Your task to perform on an android device: turn notification dots off Image 0: 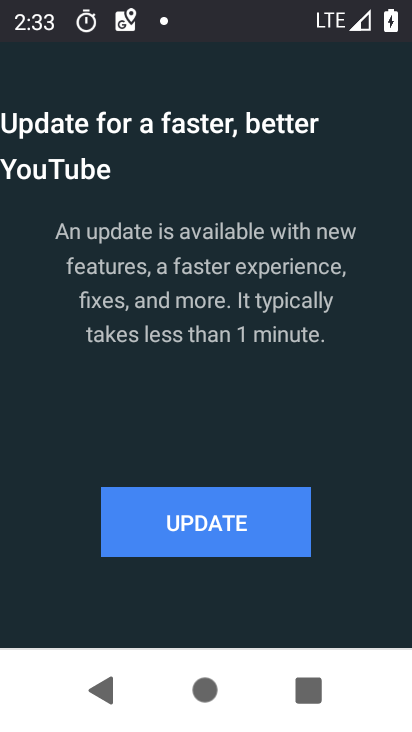
Step 0: drag from (216, 571) to (0, 17)
Your task to perform on an android device: turn notification dots off Image 1: 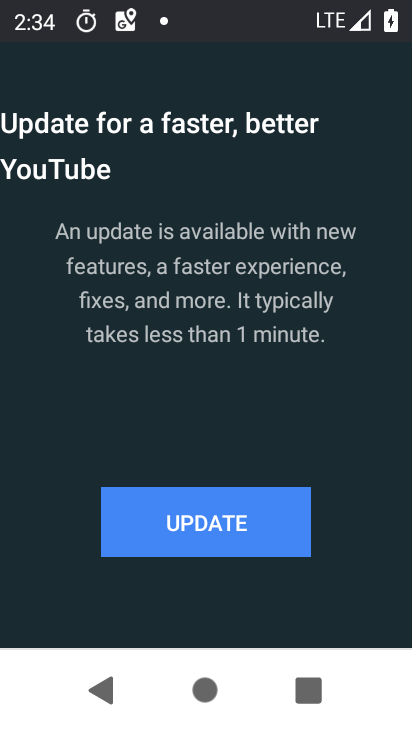
Step 1: press home button
Your task to perform on an android device: turn notification dots off Image 2: 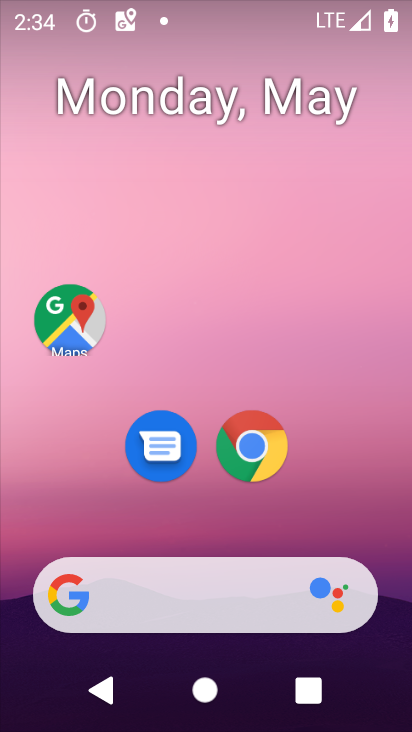
Step 2: drag from (260, 629) to (266, 197)
Your task to perform on an android device: turn notification dots off Image 3: 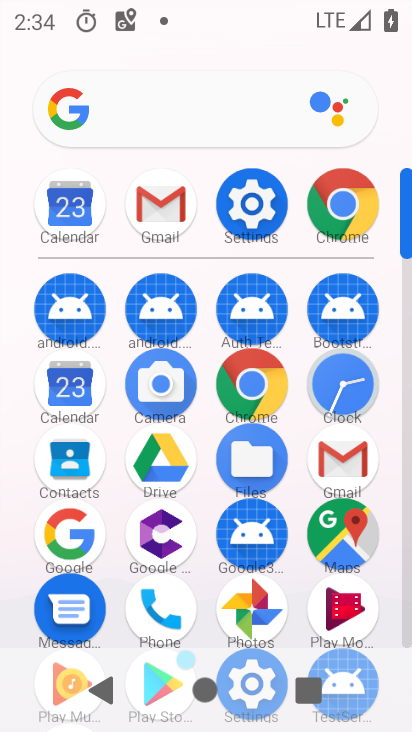
Step 3: click (227, 213)
Your task to perform on an android device: turn notification dots off Image 4: 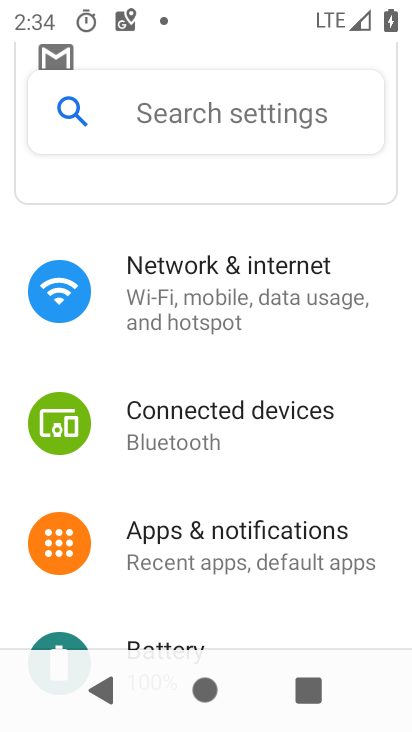
Step 4: click (206, 513)
Your task to perform on an android device: turn notification dots off Image 5: 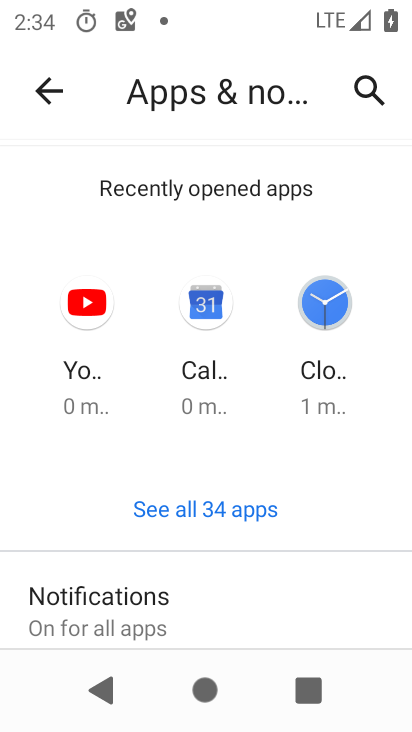
Step 5: drag from (213, 564) to (223, 268)
Your task to perform on an android device: turn notification dots off Image 6: 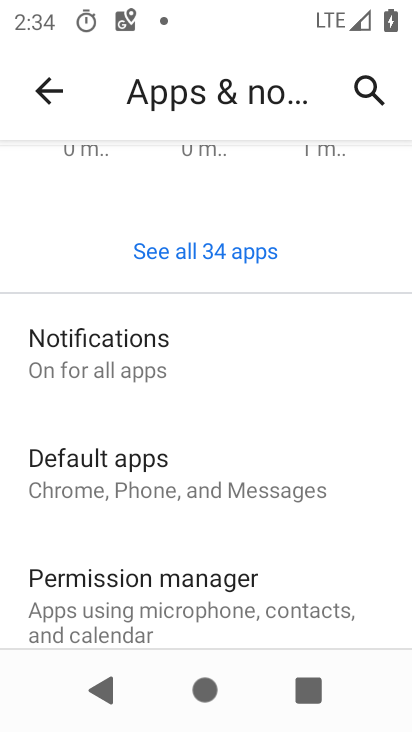
Step 6: click (185, 322)
Your task to perform on an android device: turn notification dots off Image 7: 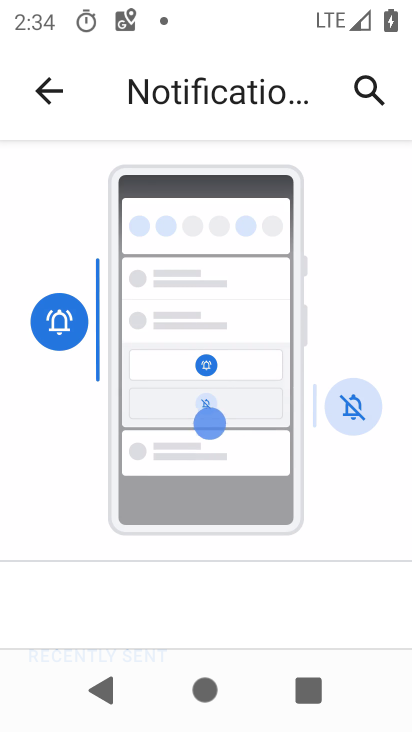
Step 7: drag from (198, 601) to (87, 25)
Your task to perform on an android device: turn notification dots off Image 8: 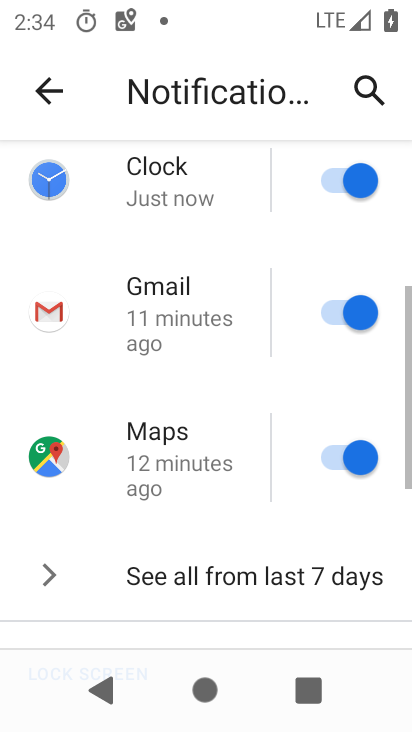
Step 8: drag from (140, 406) to (3, 76)
Your task to perform on an android device: turn notification dots off Image 9: 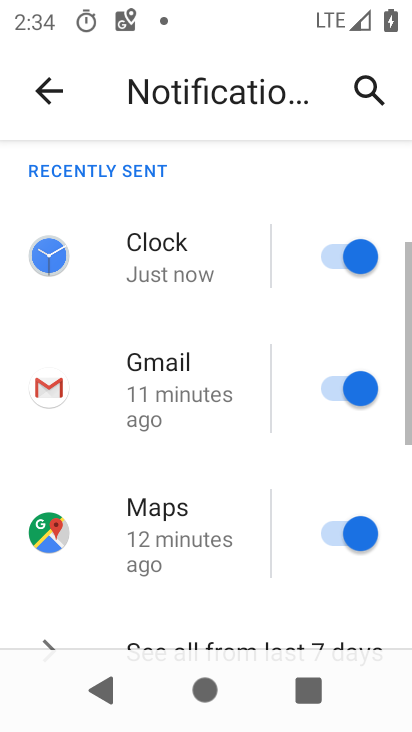
Step 9: drag from (139, 588) to (141, 239)
Your task to perform on an android device: turn notification dots off Image 10: 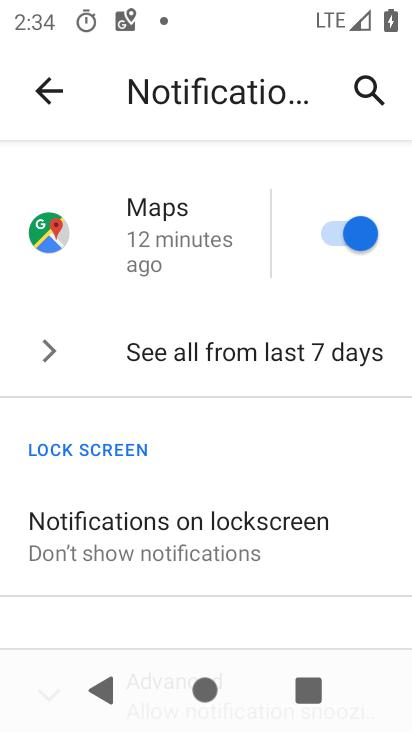
Step 10: drag from (211, 611) to (171, 212)
Your task to perform on an android device: turn notification dots off Image 11: 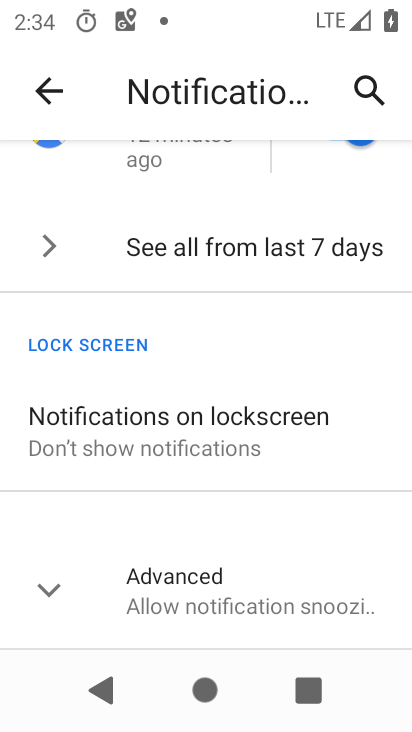
Step 11: click (164, 578)
Your task to perform on an android device: turn notification dots off Image 12: 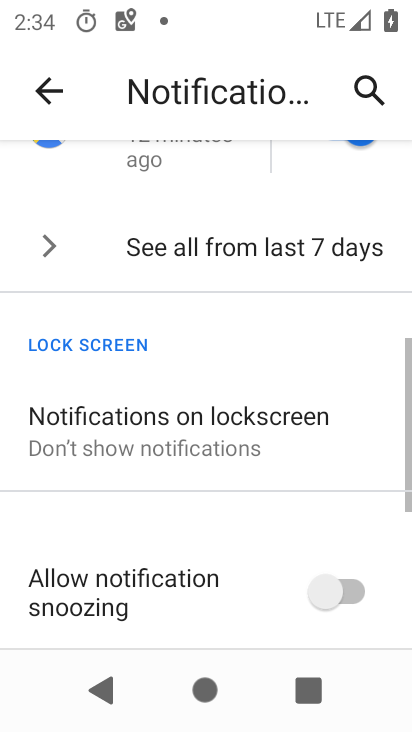
Step 12: drag from (196, 568) to (218, 159)
Your task to perform on an android device: turn notification dots off Image 13: 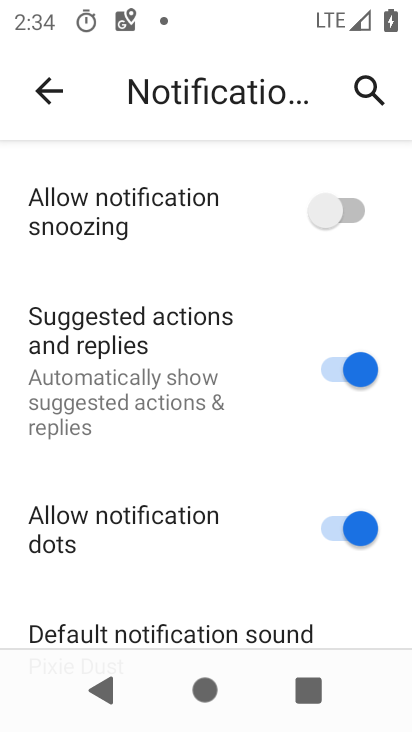
Step 13: click (362, 530)
Your task to perform on an android device: turn notification dots off Image 14: 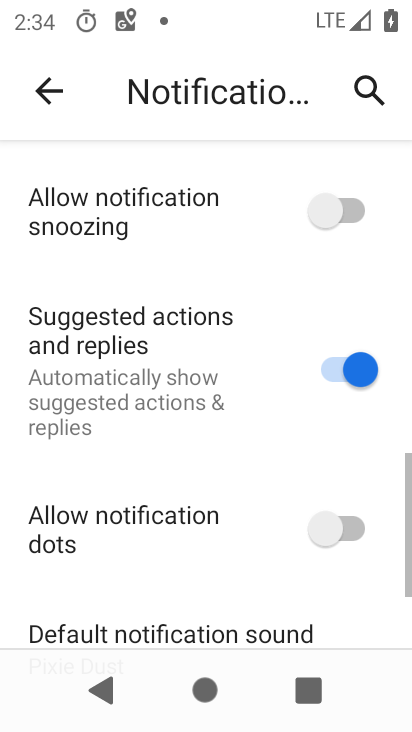
Step 14: task complete